Your task to perform on an android device: install app "Booking.com: Hotels and more" Image 0: 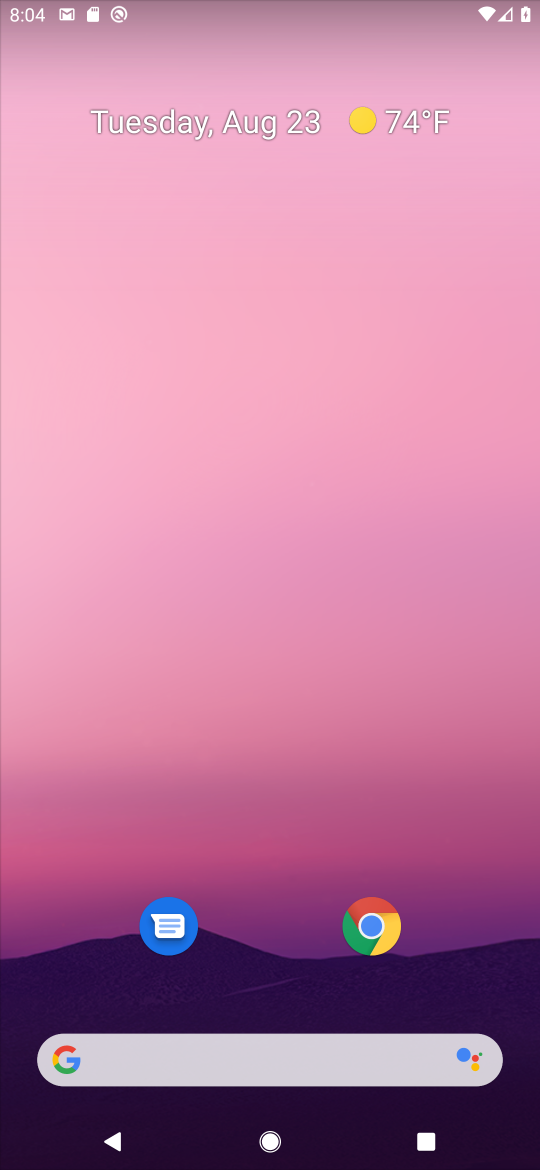
Step 0: drag from (252, 794) to (529, 77)
Your task to perform on an android device: install app "Booking.com: Hotels and more" Image 1: 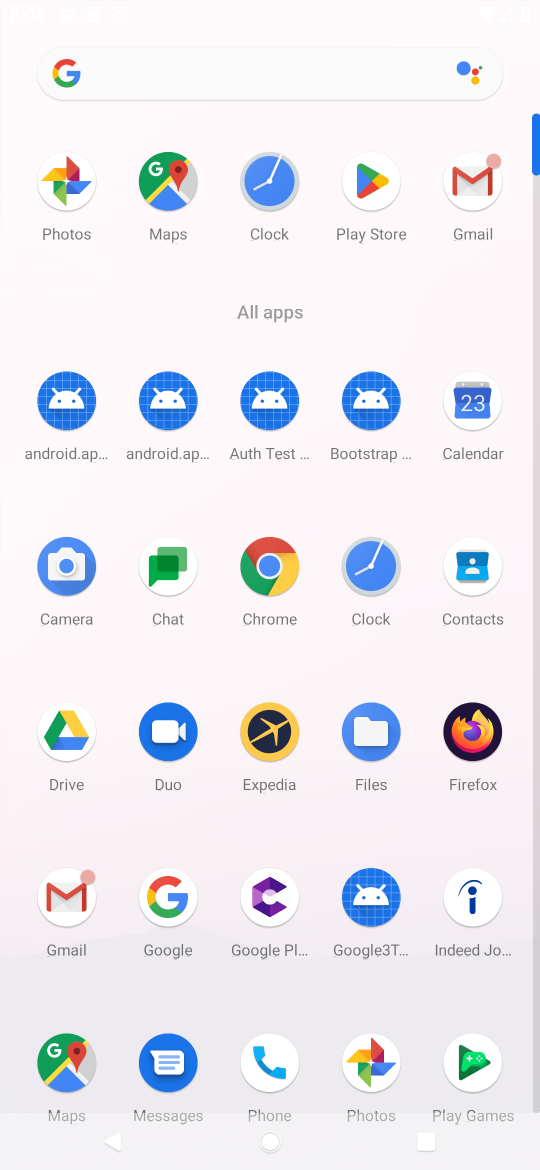
Step 1: click (385, 197)
Your task to perform on an android device: install app "Booking.com: Hotels and more" Image 2: 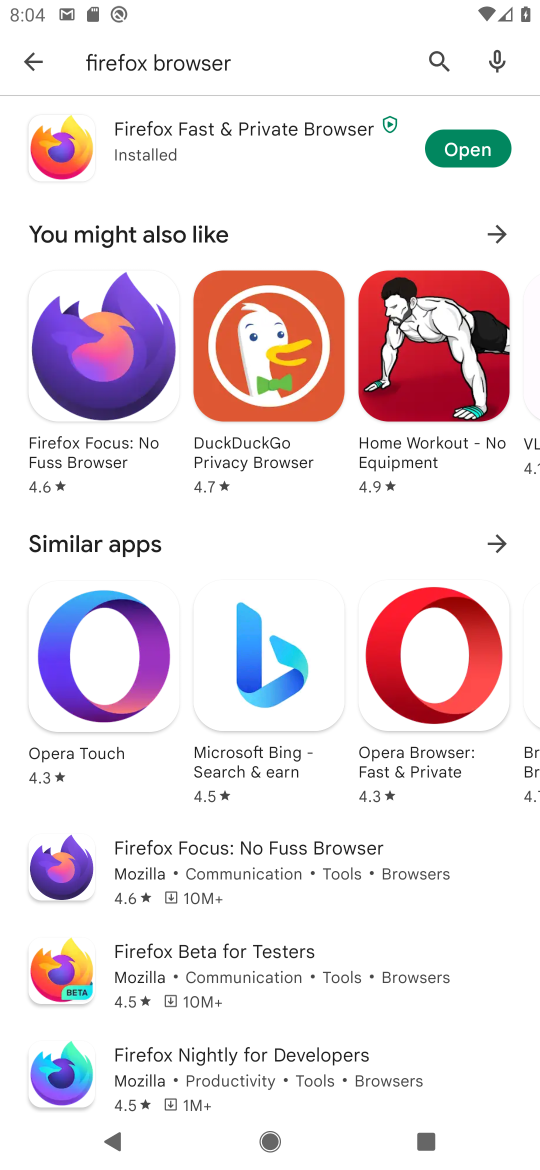
Step 2: click (238, 54)
Your task to perform on an android device: install app "Booking.com: Hotels and more" Image 3: 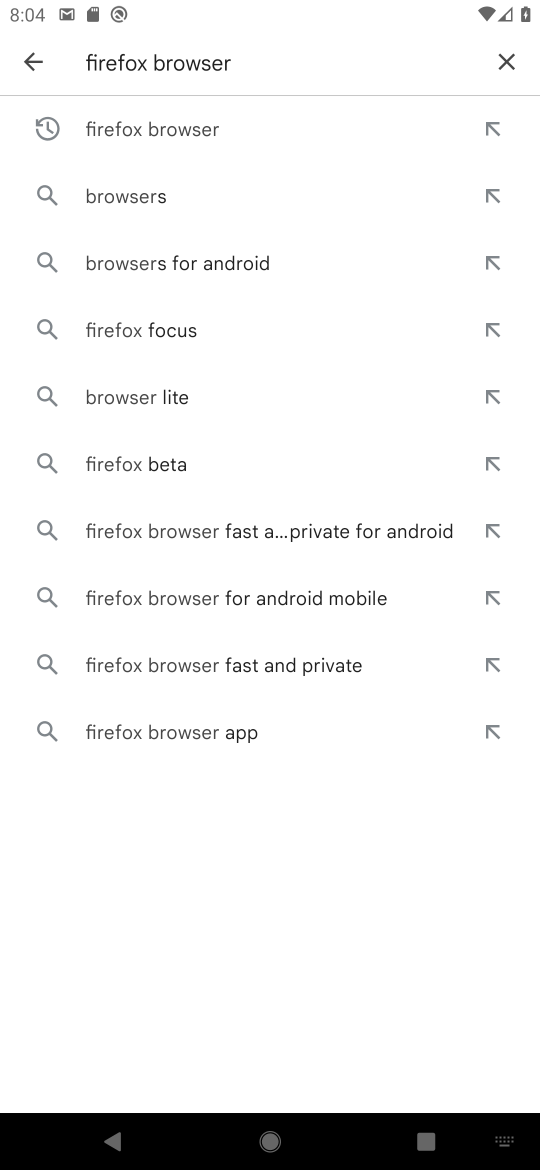
Step 3: click (505, 54)
Your task to perform on an android device: install app "Booking.com: Hotels and more" Image 4: 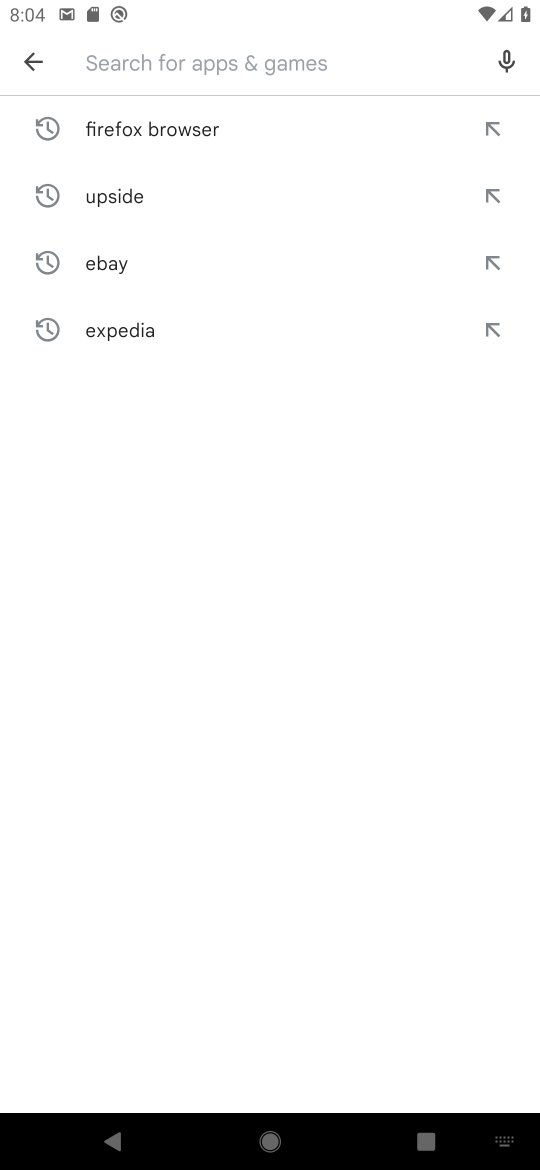
Step 4: type "Booking.com"
Your task to perform on an android device: install app "Booking.com: Hotels and more" Image 5: 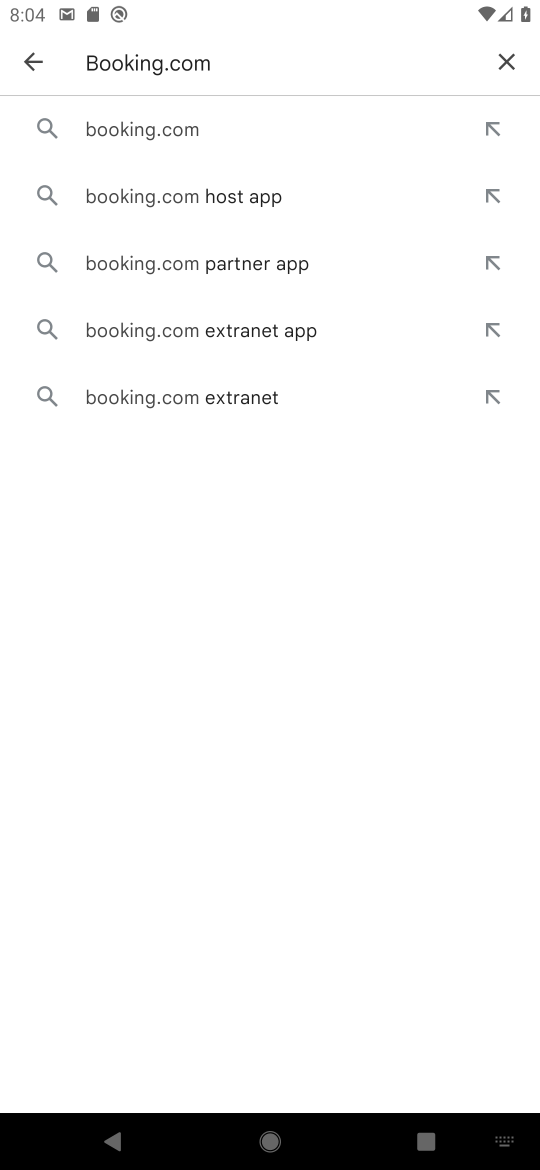
Step 5: click (196, 122)
Your task to perform on an android device: install app "Booking.com: Hotels and more" Image 6: 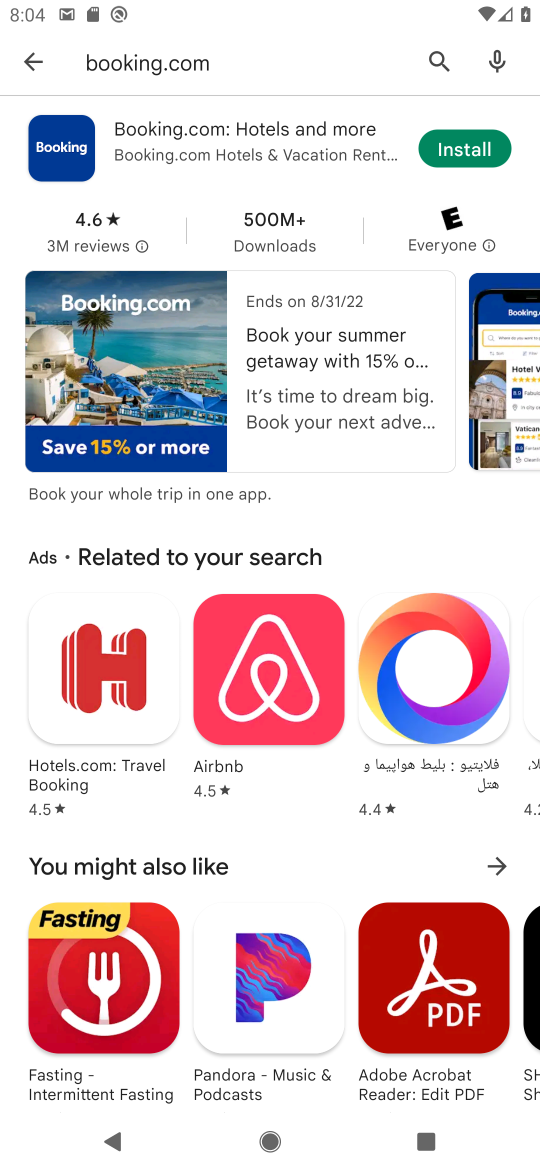
Step 6: click (464, 142)
Your task to perform on an android device: install app "Booking.com: Hotels and more" Image 7: 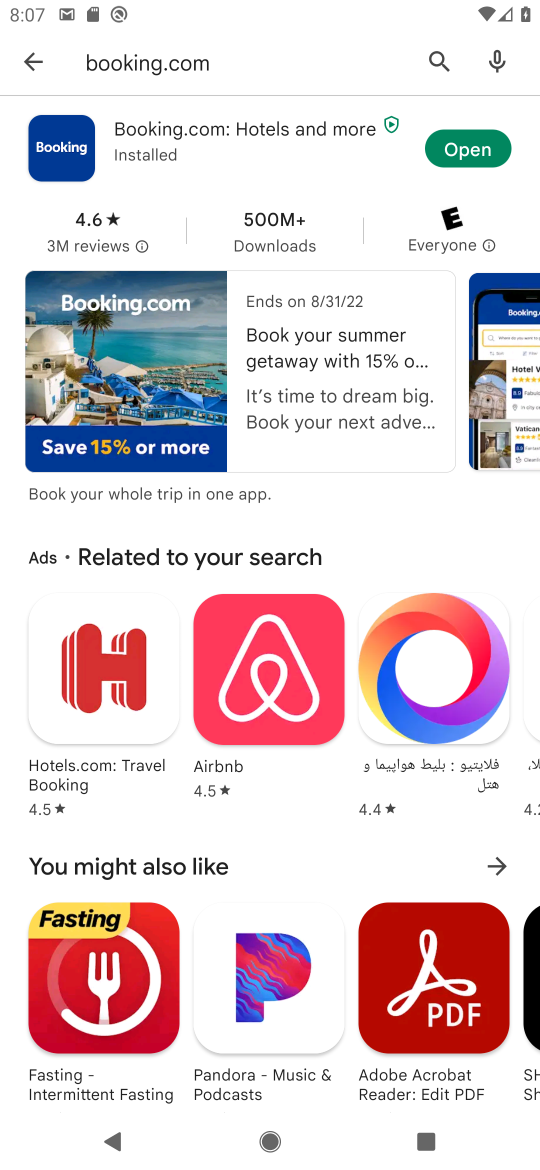
Step 7: task complete